Your task to perform on an android device: Show me the best rated 4K TV on Walmart. Image 0: 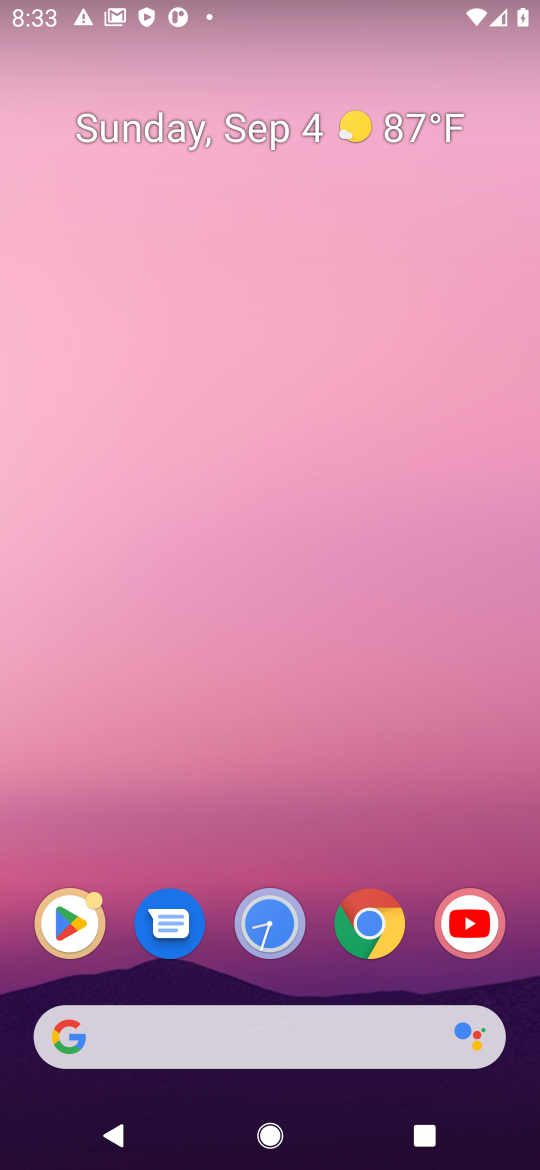
Step 0: press home button
Your task to perform on an android device: Show me the best rated 4K TV on Walmart. Image 1: 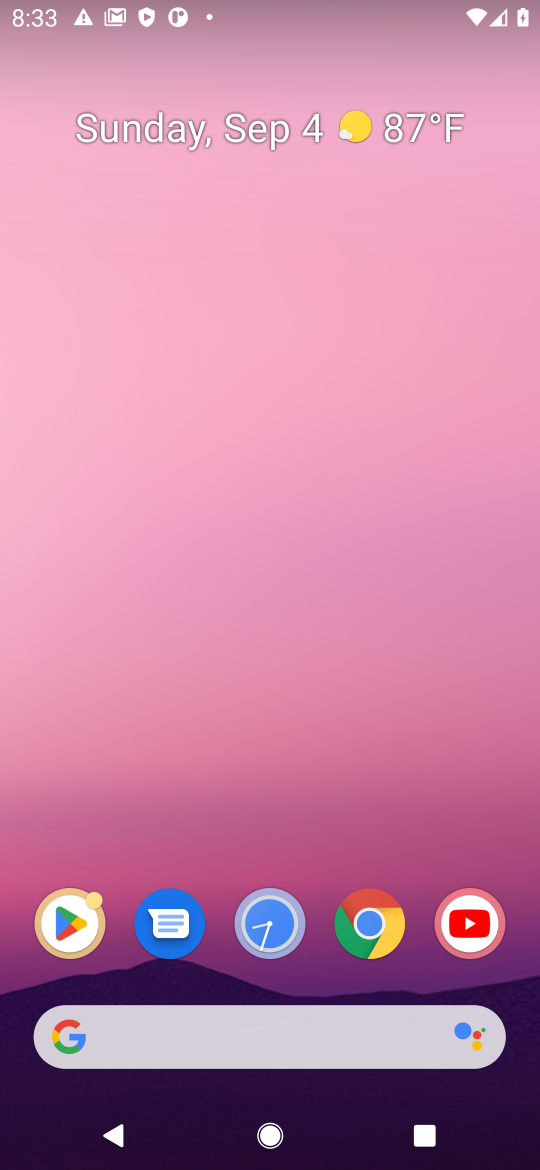
Step 1: click (386, 1026)
Your task to perform on an android device: Show me the best rated 4K TV on Walmart. Image 2: 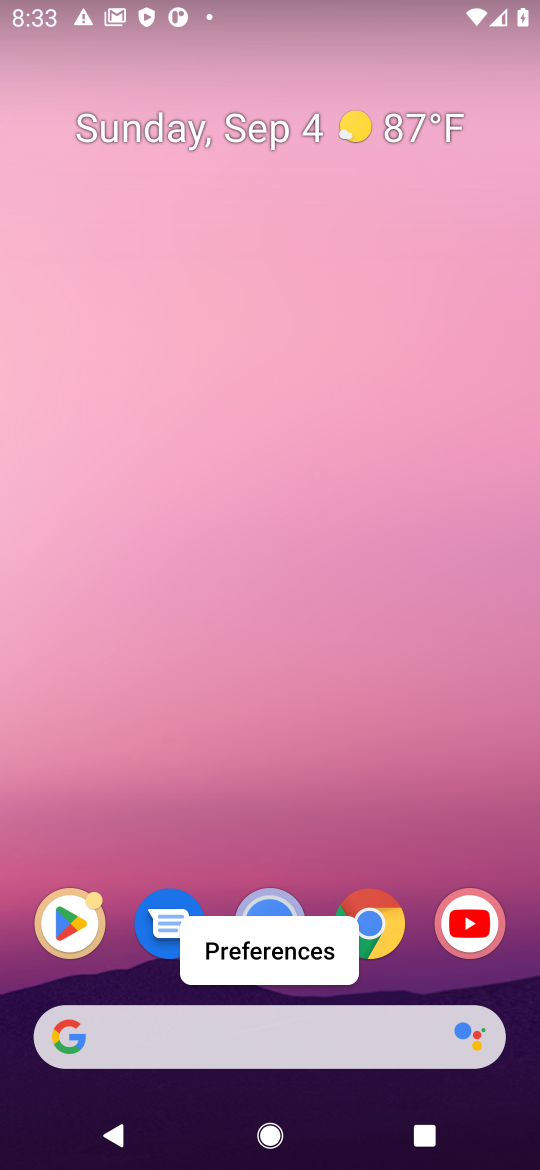
Step 2: click (377, 1024)
Your task to perform on an android device: Show me the best rated 4K TV on Walmart. Image 3: 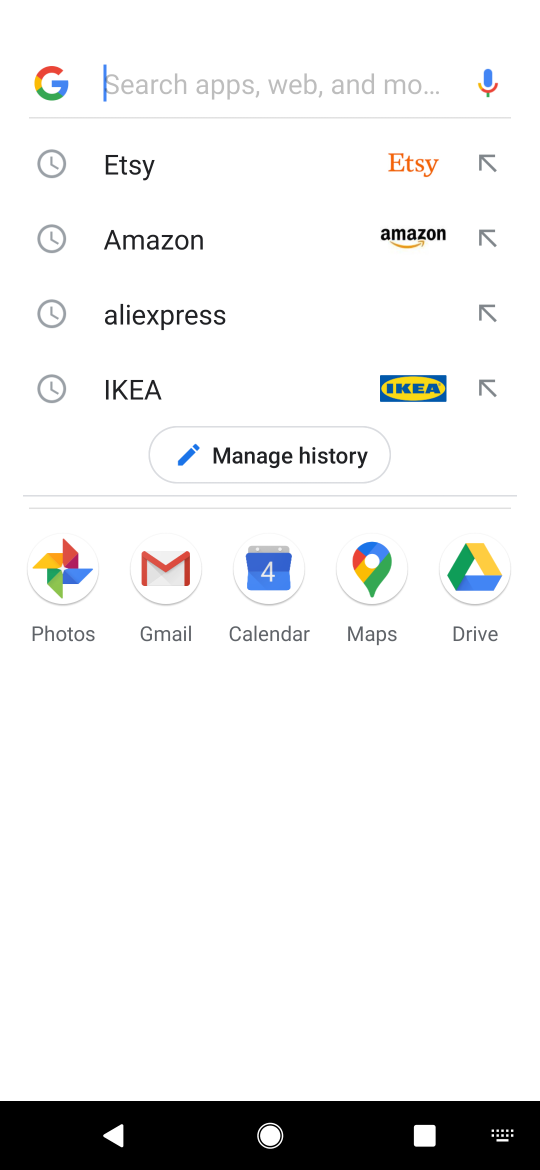
Step 3: press enter
Your task to perform on an android device: Show me the best rated 4K TV on Walmart. Image 4: 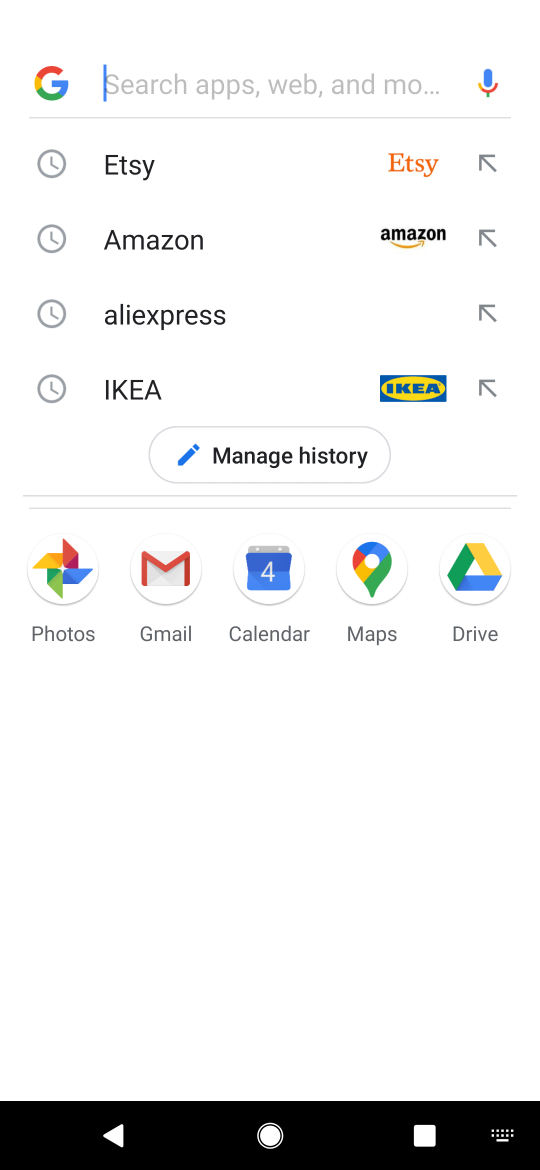
Step 4: type "walmart"
Your task to perform on an android device: Show me the best rated 4K TV on Walmart. Image 5: 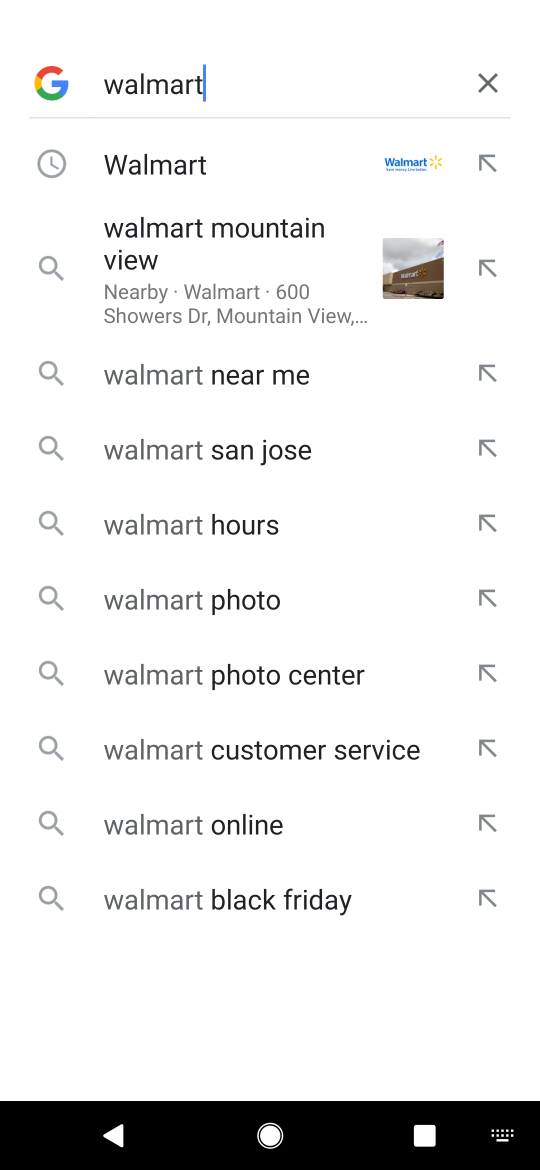
Step 5: click (177, 177)
Your task to perform on an android device: Show me the best rated 4K TV on Walmart. Image 6: 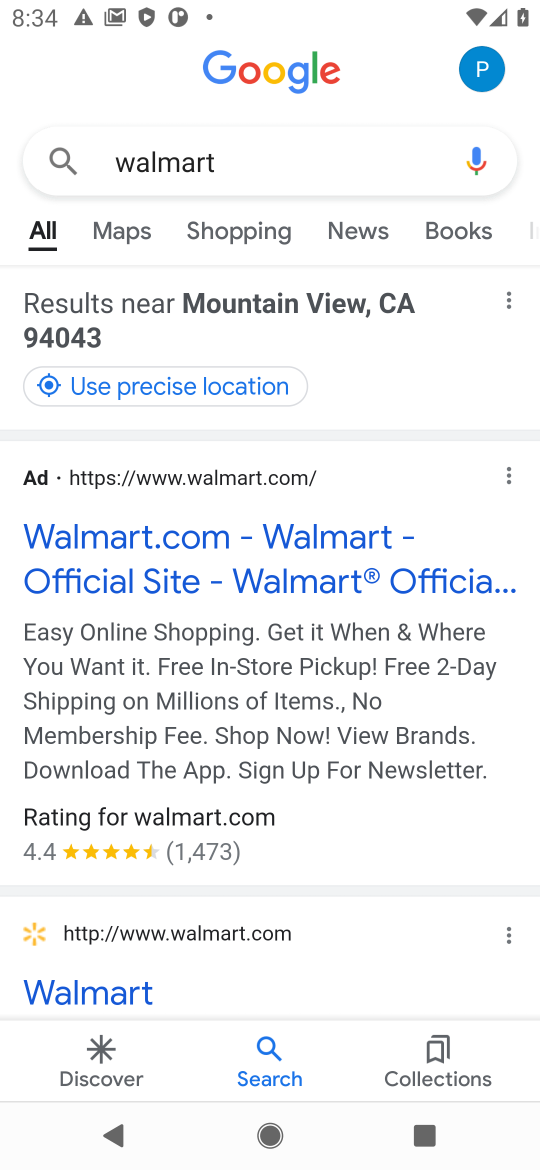
Step 6: click (294, 555)
Your task to perform on an android device: Show me the best rated 4K TV on Walmart. Image 7: 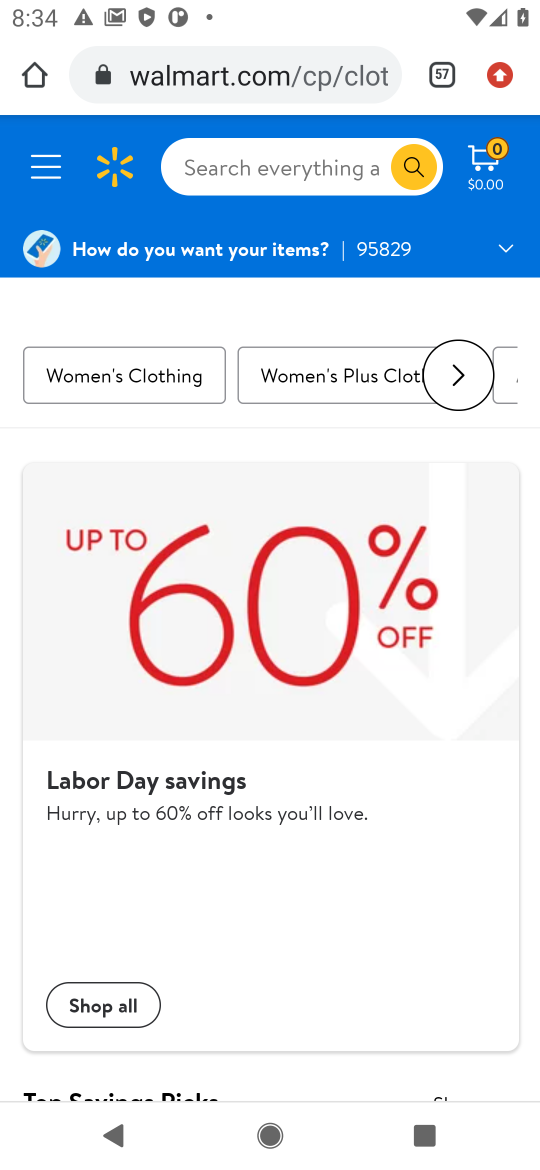
Step 7: click (256, 163)
Your task to perform on an android device: Show me the best rated 4K TV on Walmart. Image 8: 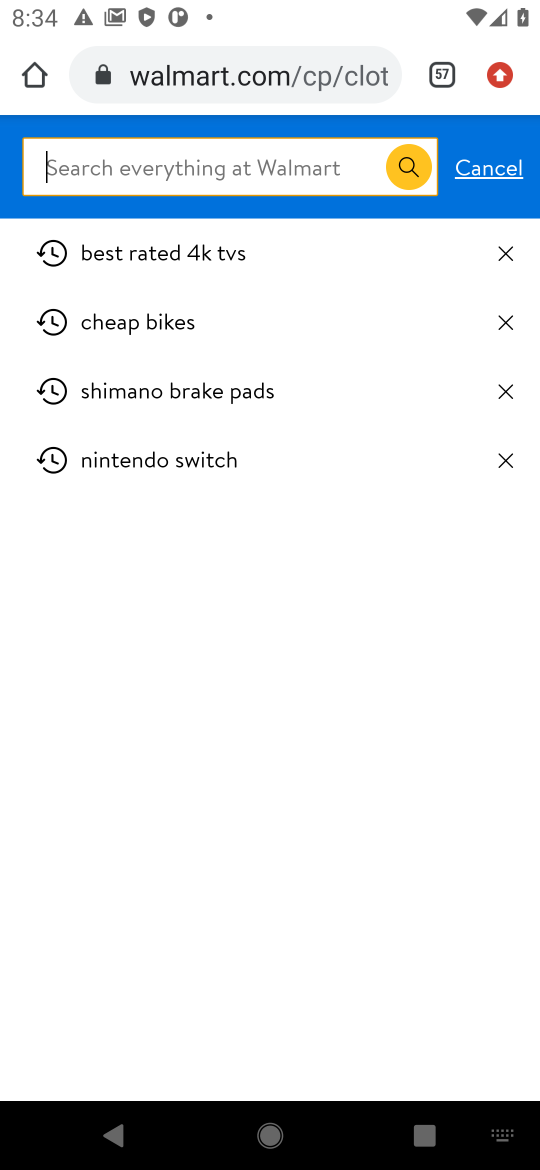
Step 8: click (219, 247)
Your task to perform on an android device: Show me the best rated 4K TV on Walmart. Image 9: 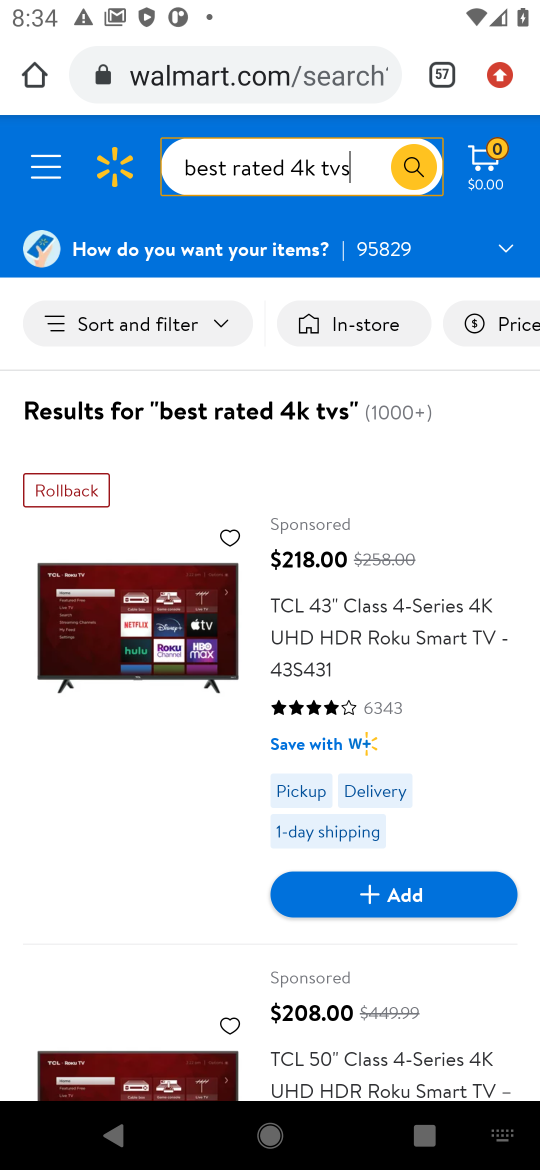
Step 9: task complete